Your task to perform on an android device: open chrome and create a bookmark for the current page Image 0: 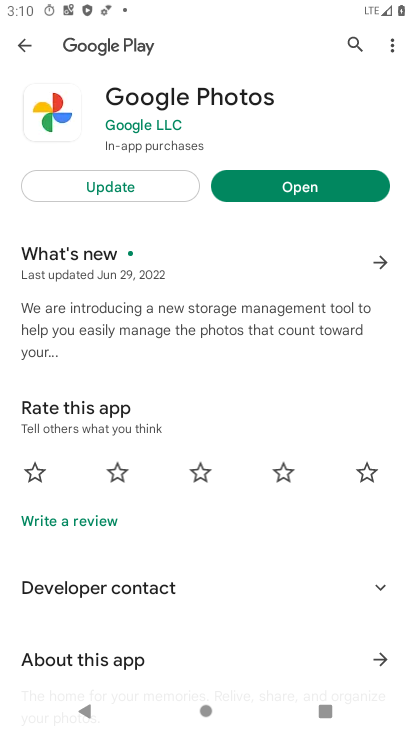
Step 0: press home button
Your task to perform on an android device: open chrome and create a bookmark for the current page Image 1: 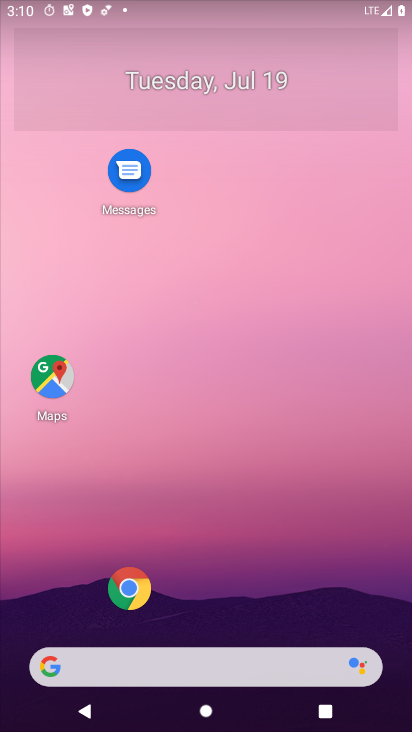
Step 1: drag from (207, 413) to (294, 44)
Your task to perform on an android device: open chrome and create a bookmark for the current page Image 2: 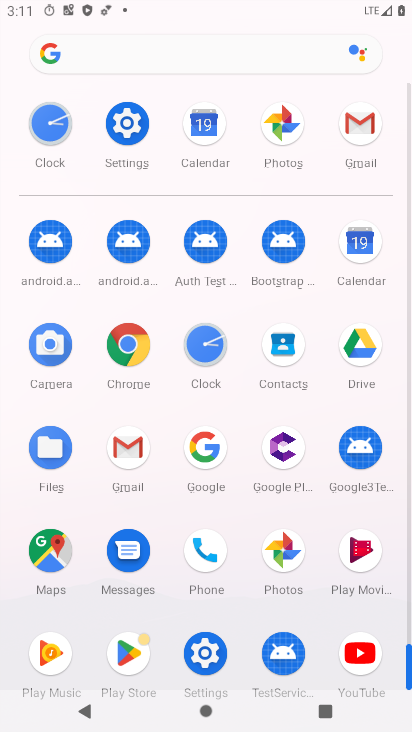
Step 2: click (125, 354)
Your task to perform on an android device: open chrome and create a bookmark for the current page Image 3: 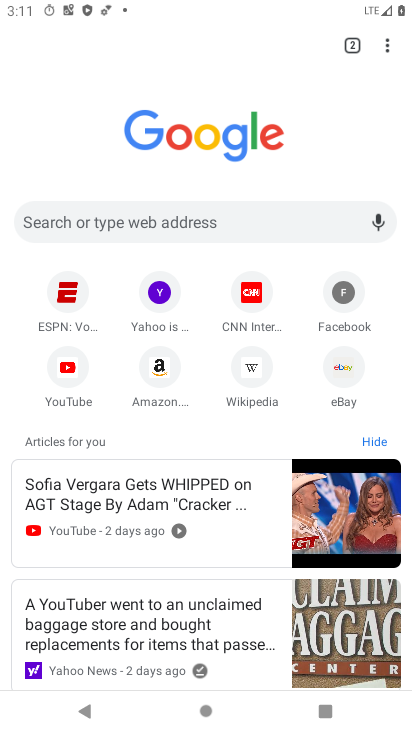
Step 3: click (385, 44)
Your task to perform on an android device: open chrome and create a bookmark for the current page Image 4: 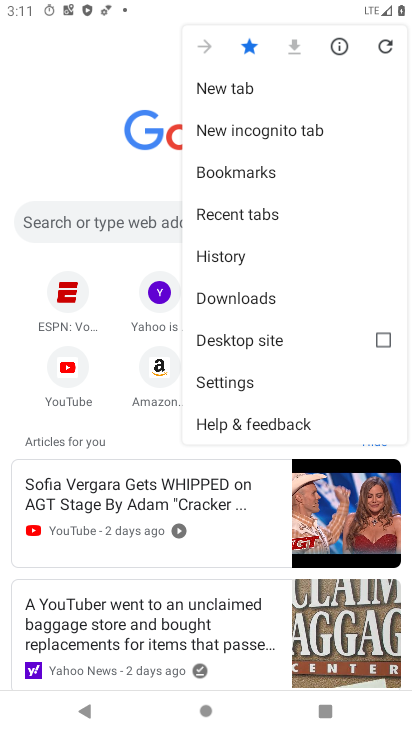
Step 4: click (222, 176)
Your task to perform on an android device: open chrome and create a bookmark for the current page Image 5: 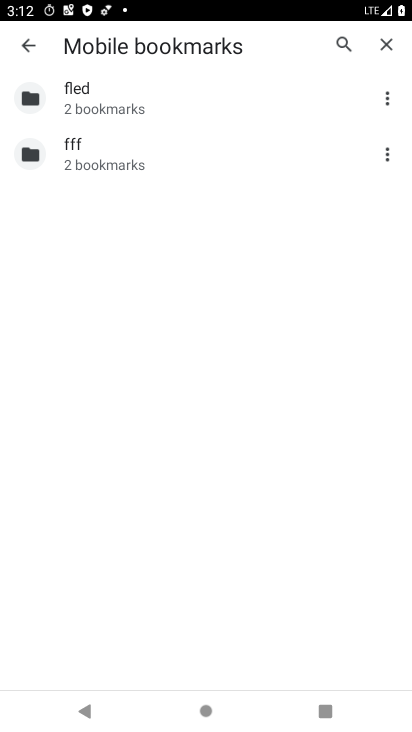
Step 5: click (30, 46)
Your task to perform on an android device: open chrome and create a bookmark for the current page Image 6: 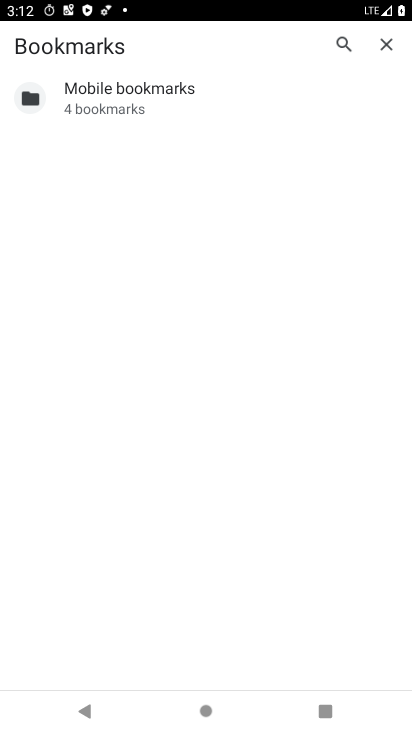
Step 6: task complete